Your task to perform on an android device: Do I have any events this weekend? Image 0: 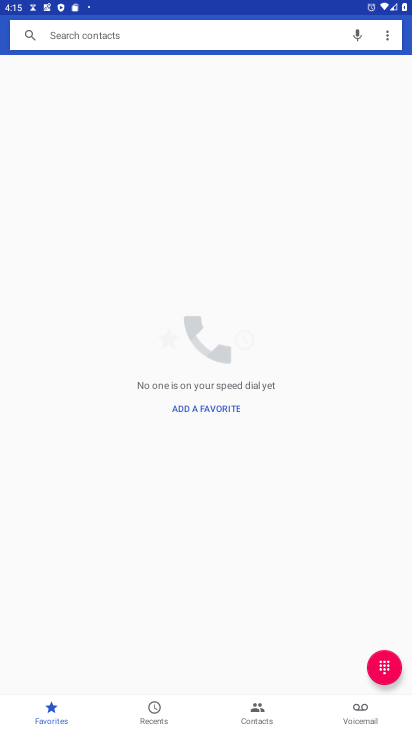
Step 0: press home button
Your task to perform on an android device: Do I have any events this weekend? Image 1: 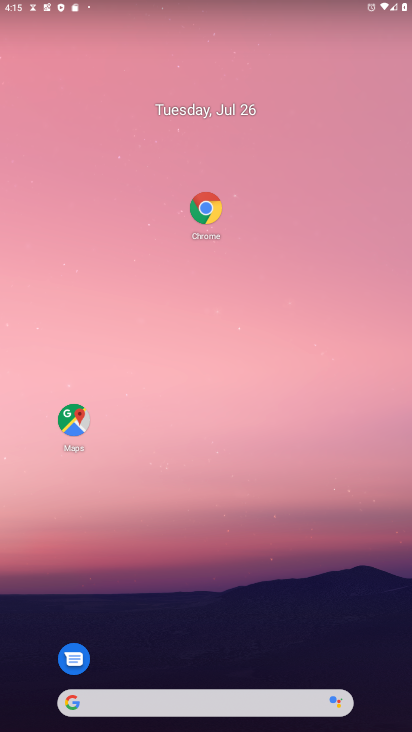
Step 1: drag from (186, 636) to (211, 69)
Your task to perform on an android device: Do I have any events this weekend? Image 2: 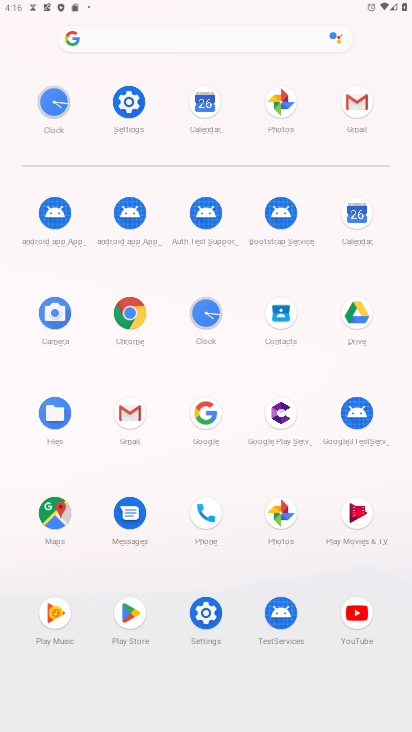
Step 2: click (362, 228)
Your task to perform on an android device: Do I have any events this weekend? Image 3: 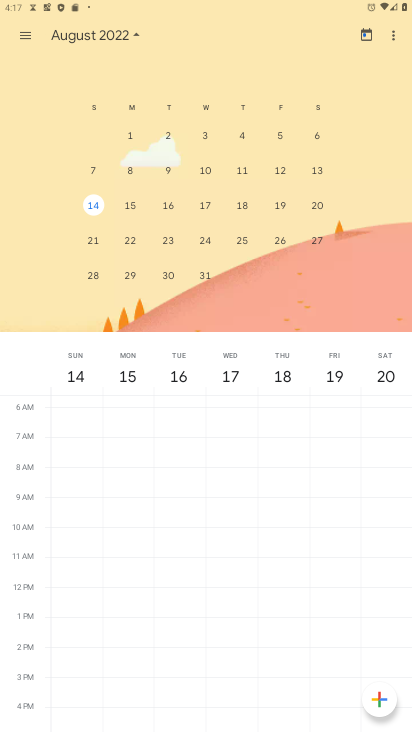
Step 3: drag from (340, 185) to (390, 211)
Your task to perform on an android device: Do I have any events this weekend? Image 4: 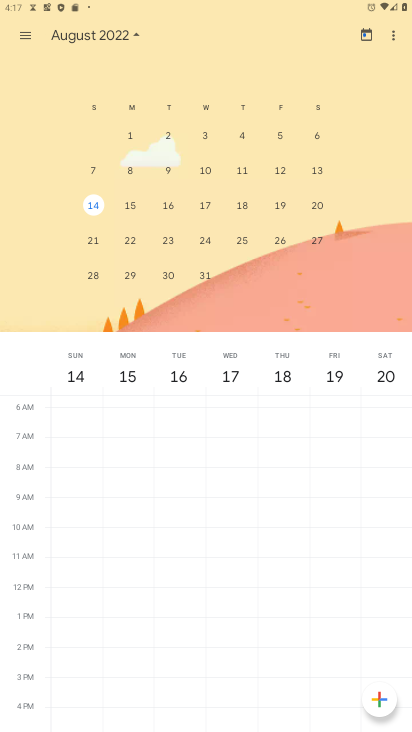
Step 4: drag from (176, 202) to (384, 152)
Your task to perform on an android device: Do I have any events this weekend? Image 5: 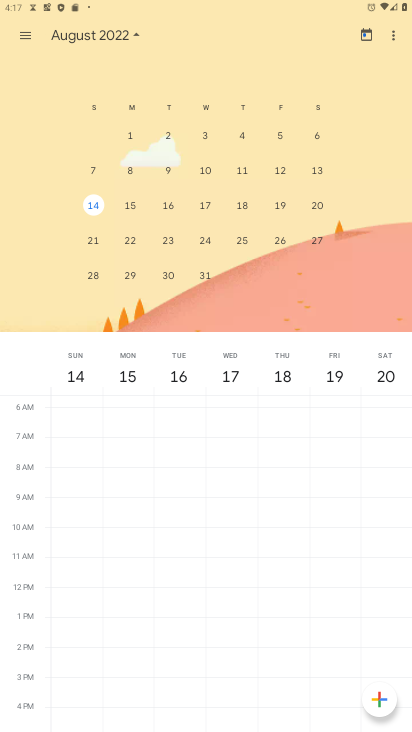
Step 5: drag from (143, 169) to (410, 157)
Your task to perform on an android device: Do I have any events this weekend? Image 6: 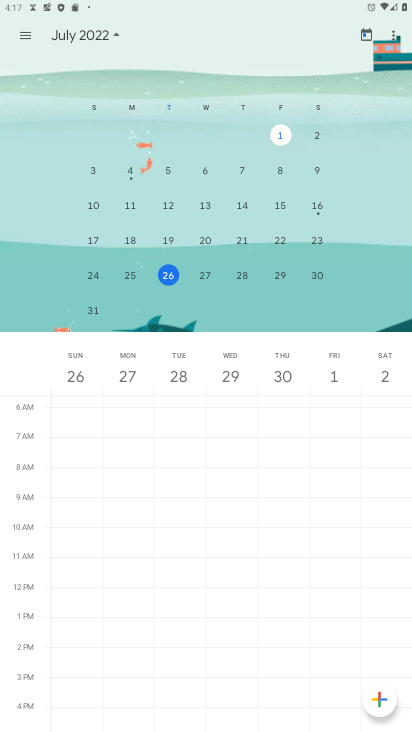
Step 6: click (88, 271)
Your task to perform on an android device: Do I have any events this weekend? Image 7: 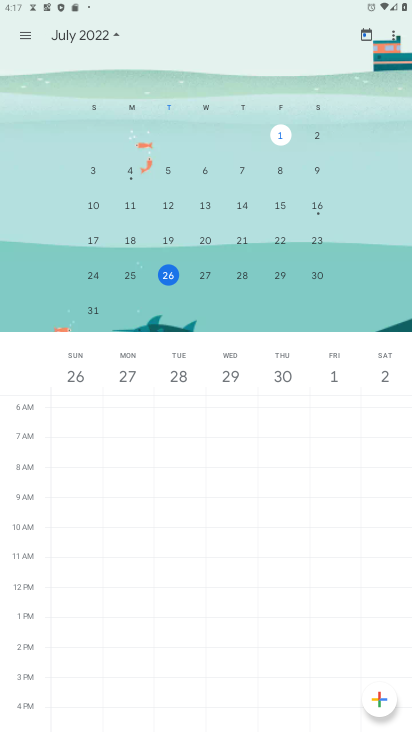
Step 7: click (88, 271)
Your task to perform on an android device: Do I have any events this weekend? Image 8: 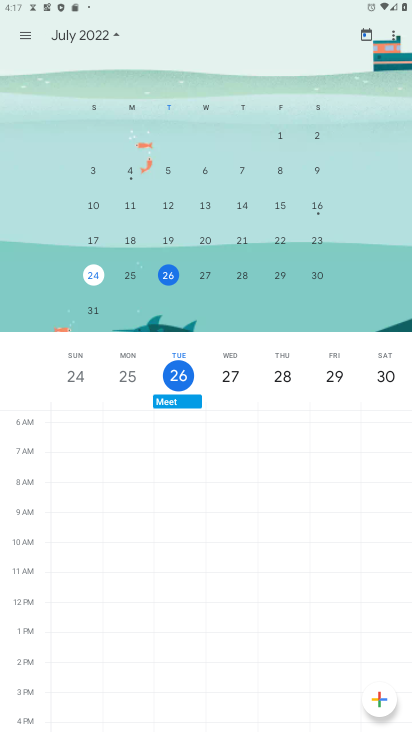
Step 8: task complete